Your task to perform on an android device: check out phone information Image 0: 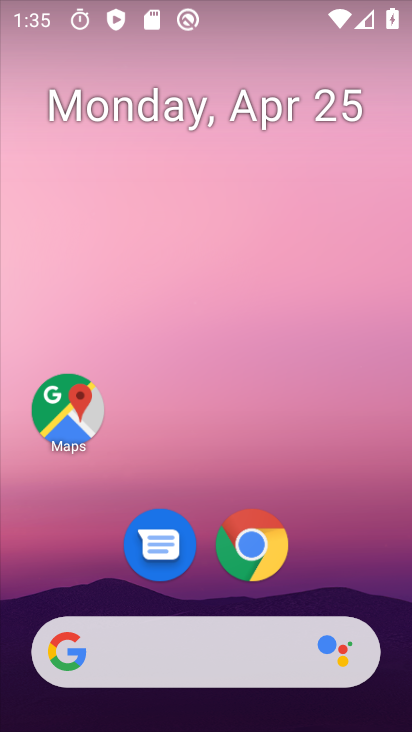
Step 0: drag from (364, 510) to (361, 171)
Your task to perform on an android device: check out phone information Image 1: 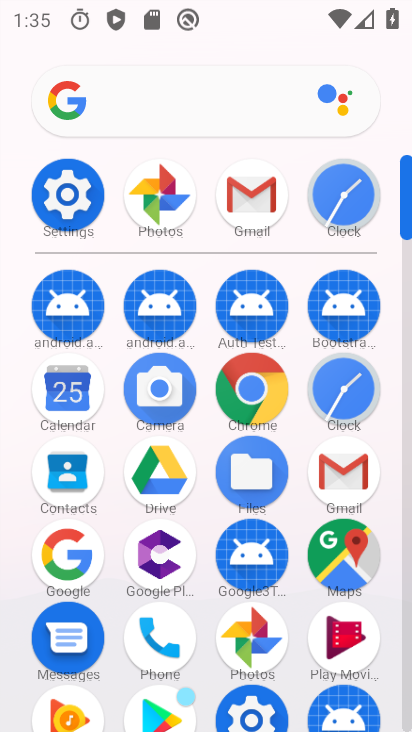
Step 1: click (66, 191)
Your task to perform on an android device: check out phone information Image 2: 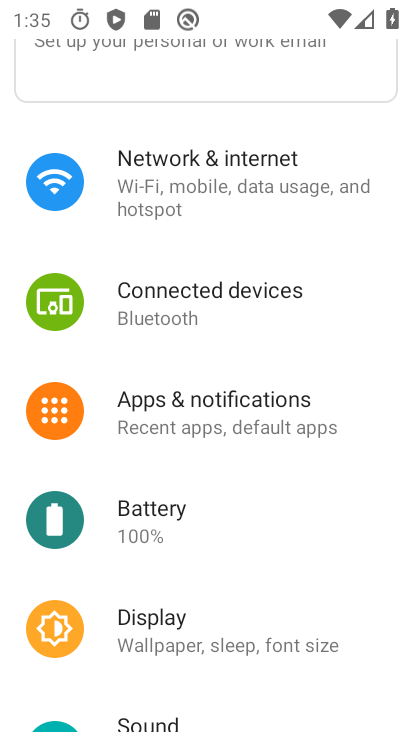
Step 2: drag from (281, 651) to (279, 210)
Your task to perform on an android device: check out phone information Image 3: 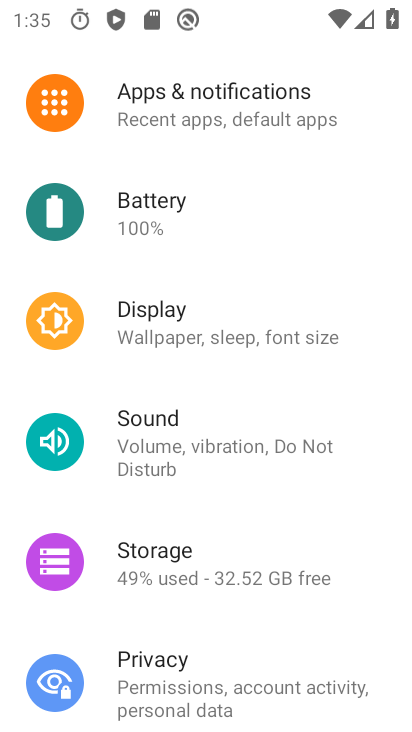
Step 3: drag from (277, 643) to (274, 216)
Your task to perform on an android device: check out phone information Image 4: 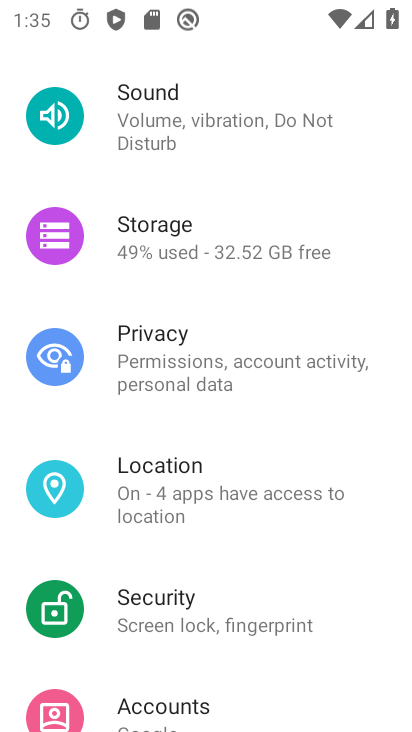
Step 4: drag from (331, 657) to (315, 217)
Your task to perform on an android device: check out phone information Image 5: 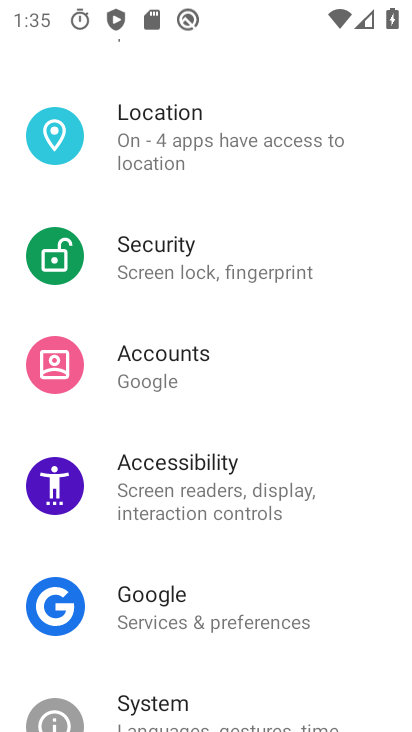
Step 5: drag from (275, 688) to (246, 214)
Your task to perform on an android device: check out phone information Image 6: 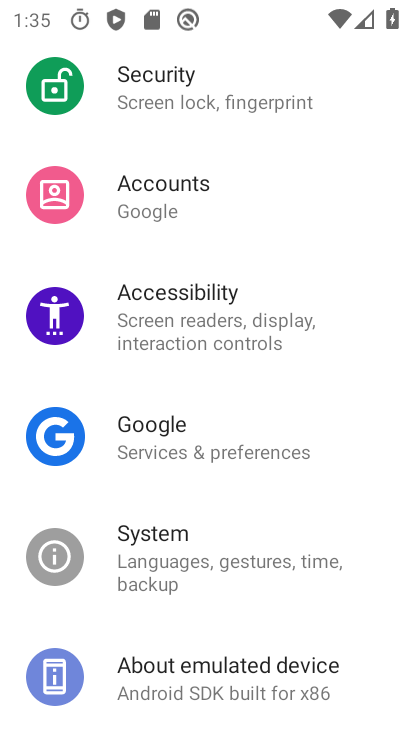
Step 6: click (252, 677)
Your task to perform on an android device: check out phone information Image 7: 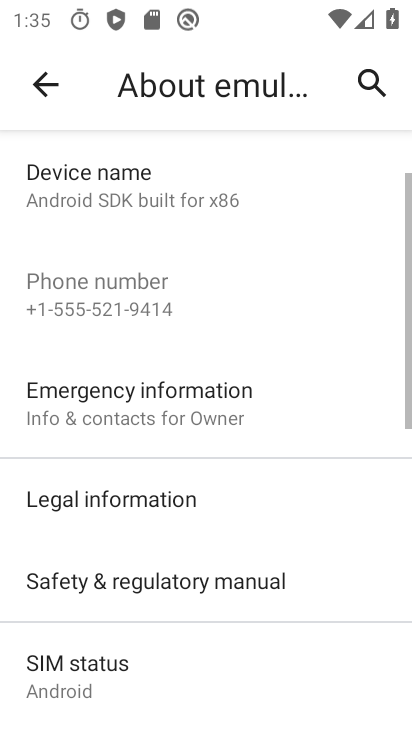
Step 7: task complete